Your task to perform on an android device: show emergency info Image 0: 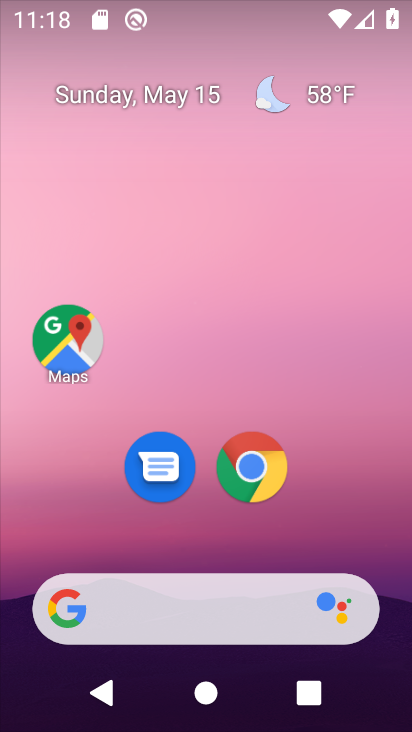
Step 0: press home button
Your task to perform on an android device: show emergency info Image 1: 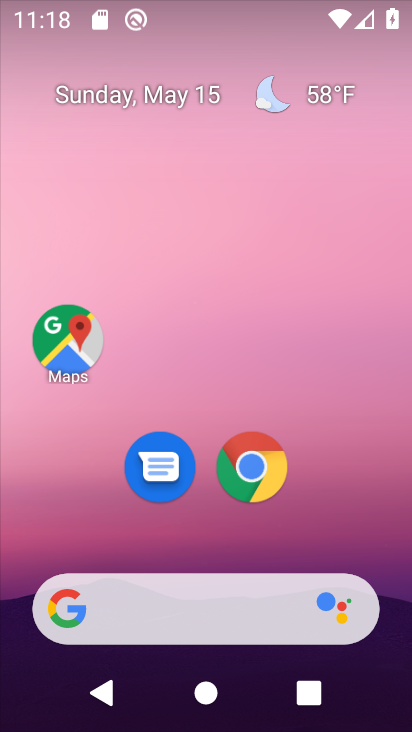
Step 1: drag from (201, 548) to (190, 29)
Your task to perform on an android device: show emergency info Image 2: 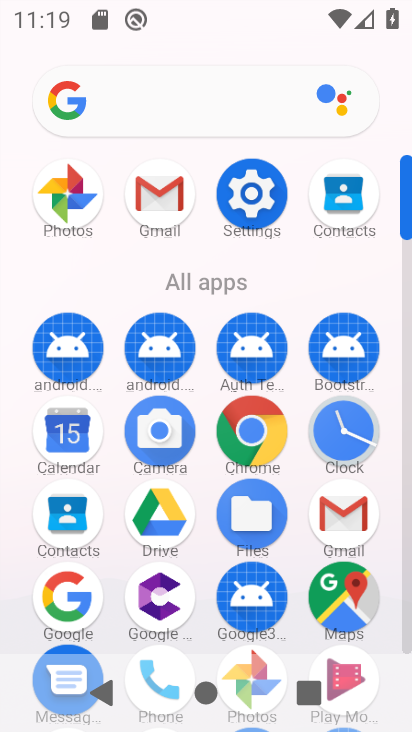
Step 2: click (247, 190)
Your task to perform on an android device: show emergency info Image 3: 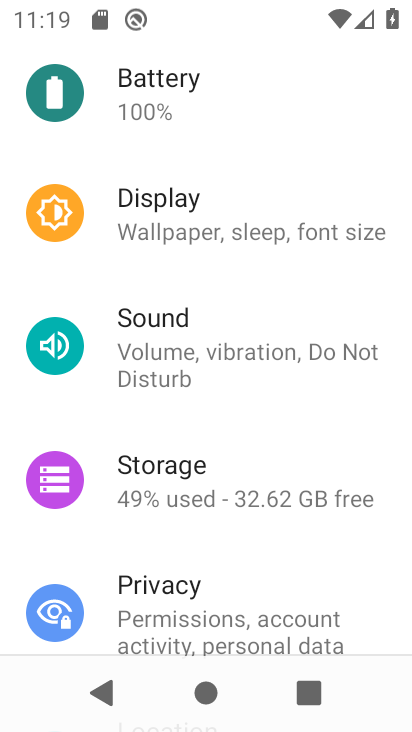
Step 3: drag from (240, 605) to (237, 75)
Your task to perform on an android device: show emergency info Image 4: 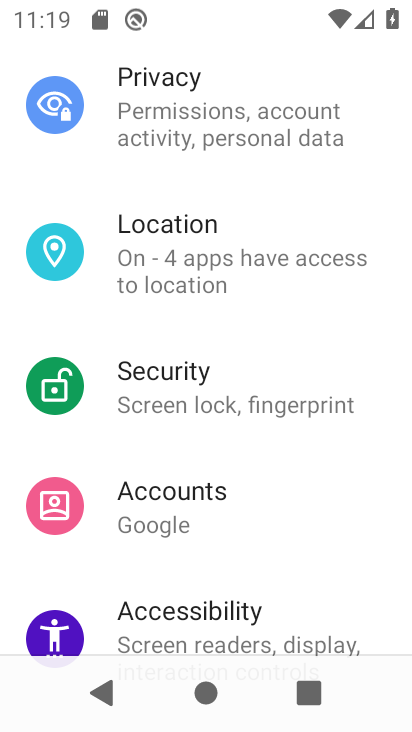
Step 4: drag from (239, 610) to (236, 135)
Your task to perform on an android device: show emergency info Image 5: 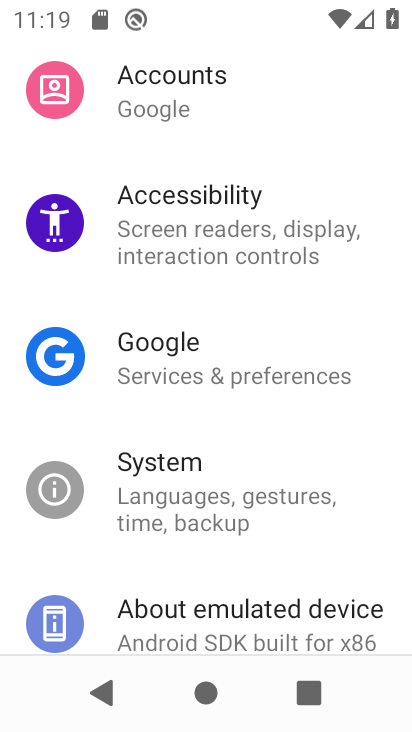
Step 5: click (242, 612)
Your task to perform on an android device: show emergency info Image 6: 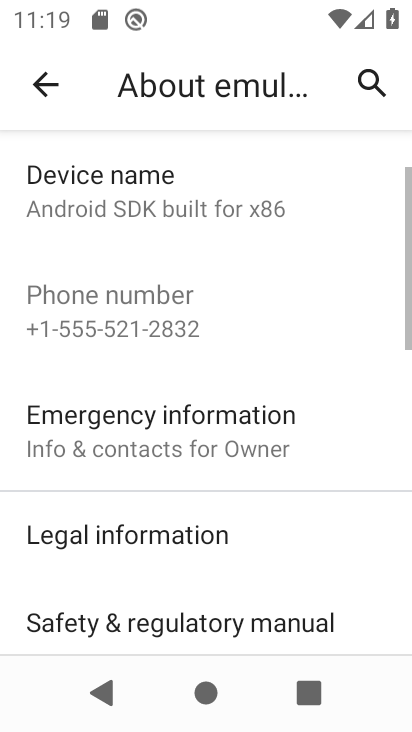
Step 6: click (216, 442)
Your task to perform on an android device: show emergency info Image 7: 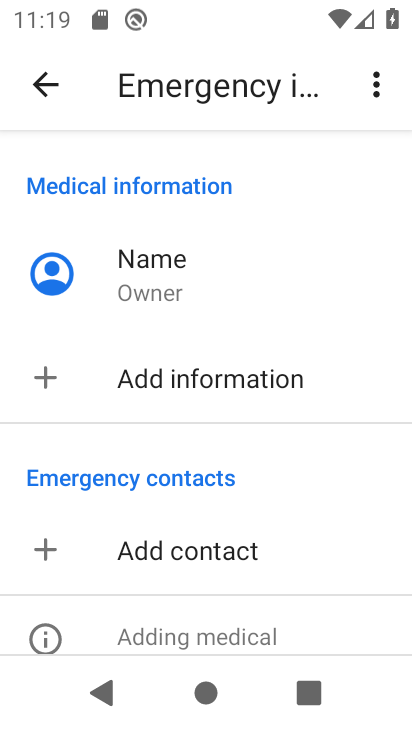
Step 7: task complete